Your task to perform on an android device: clear all cookies in the chrome app Image 0: 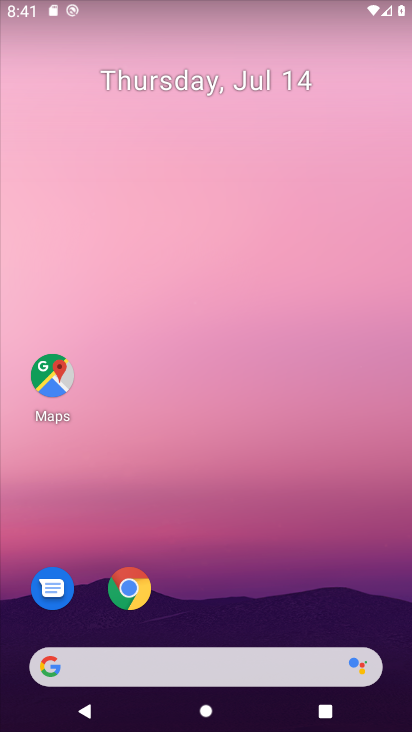
Step 0: drag from (352, 569) to (367, 55)
Your task to perform on an android device: clear all cookies in the chrome app Image 1: 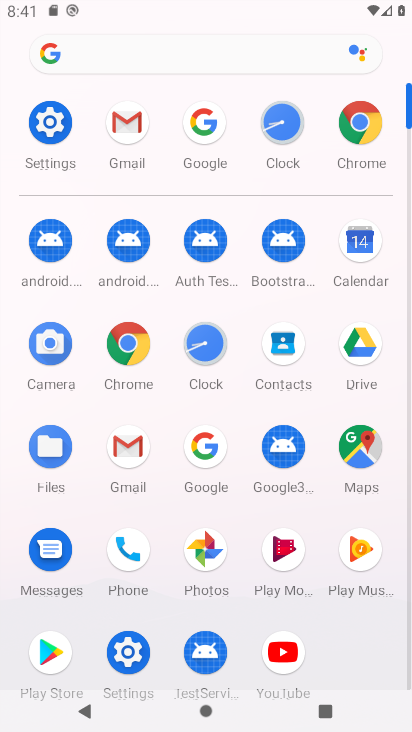
Step 1: click (365, 137)
Your task to perform on an android device: clear all cookies in the chrome app Image 2: 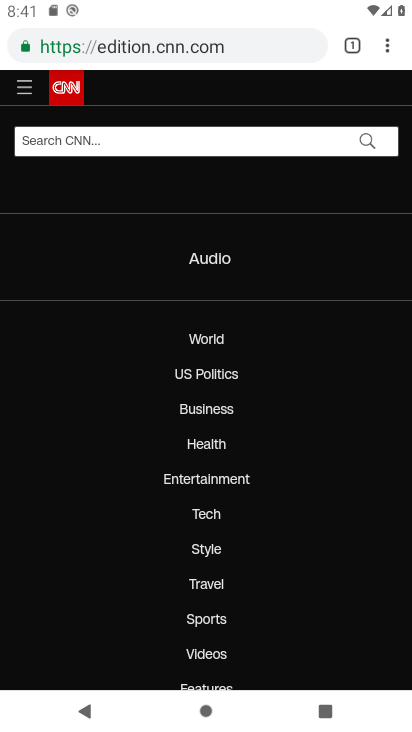
Step 2: click (387, 45)
Your task to perform on an android device: clear all cookies in the chrome app Image 3: 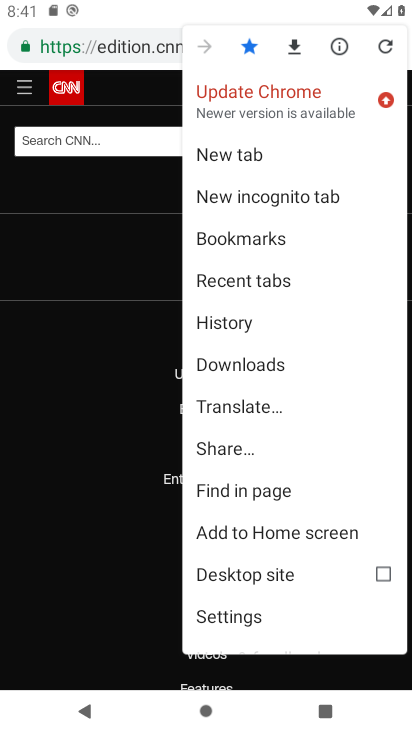
Step 3: click (255, 623)
Your task to perform on an android device: clear all cookies in the chrome app Image 4: 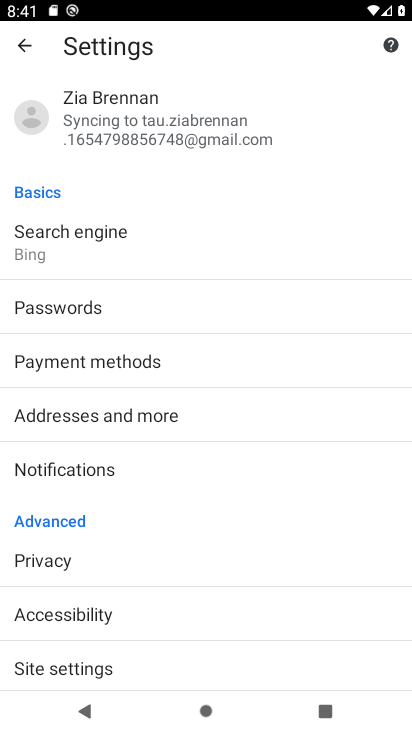
Step 4: drag from (235, 542) to (251, 456)
Your task to perform on an android device: clear all cookies in the chrome app Image 5: 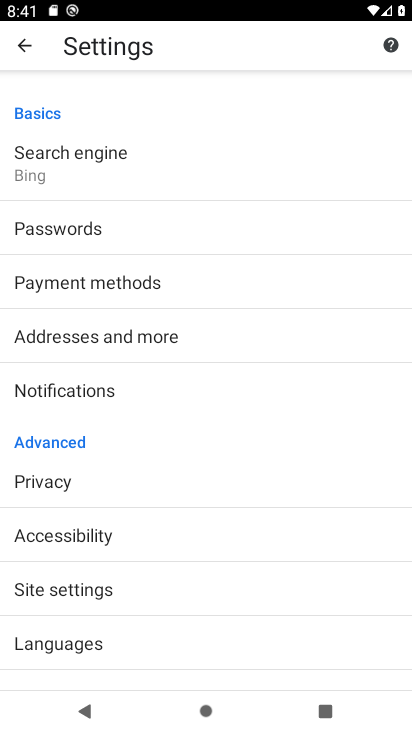
Step 5: drag from (290, 607) to (317, 389)
Your task to perform on an android device: clear all cookies in the chrome app Image 6: 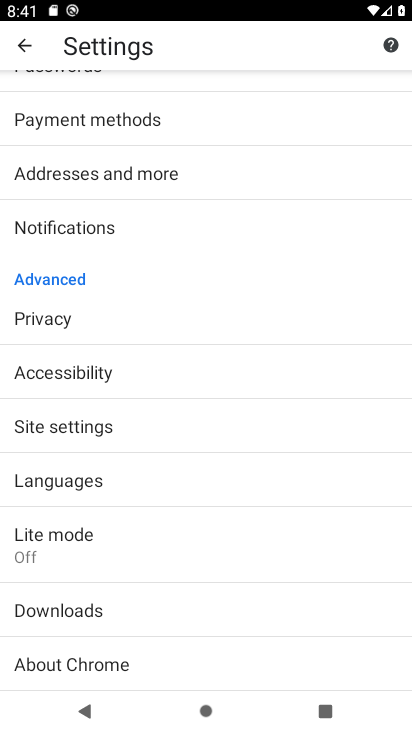
Step 6: drag from (290, 312) to (290, 414)
Your task to perform on an android device: clear all cookies in the chrome app Image 7: 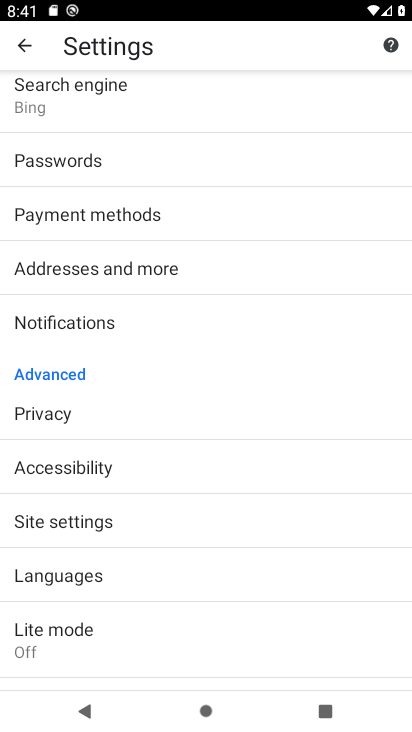
Step 7: drag from (294, 312) to (292, 400)
Your task to perform on an android device: clear all cookies in the chrome app Image 8: 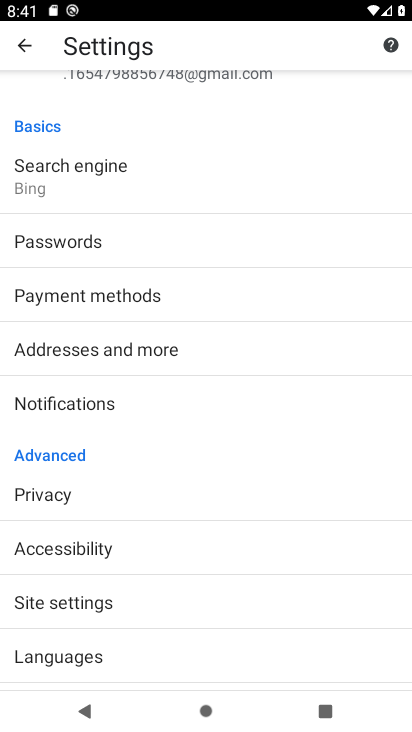
Step 8: click (222, 508)
Your task to perform on an android device: clear all cookies in the chrome app Image 9: 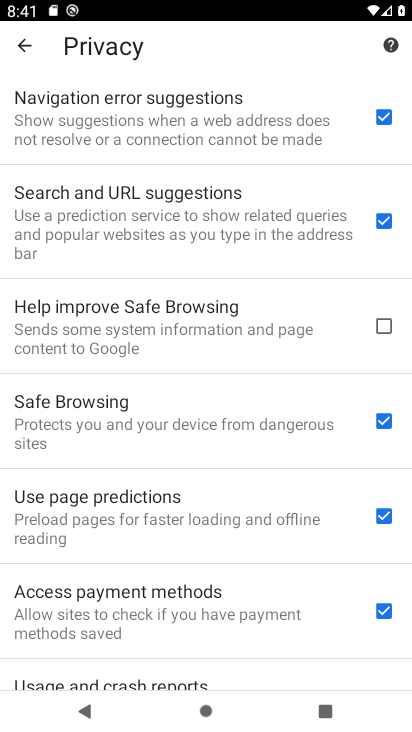
Step 9: drag from (294, 535) to (308, 411)
Your task to perform on an android device: clear all cookies in the chrome app Image 10: 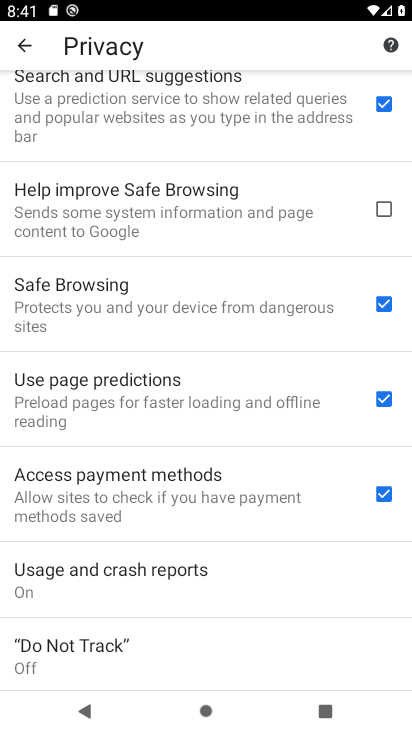
Step 10: drag from (314, 573) to (319, 419)
Your task to perform on an android device: clear all cookies in the chrome app Image 11: 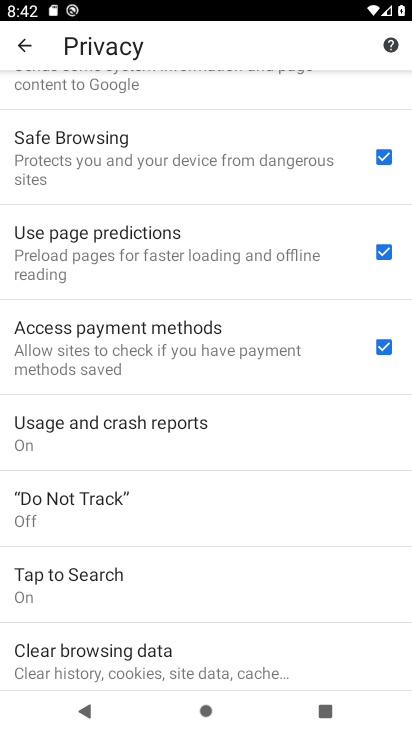
Step 11: drag from (315, 581) to (316, 471)
Your task to perform on an android device: clear all cookies in the chrome app Image 12: 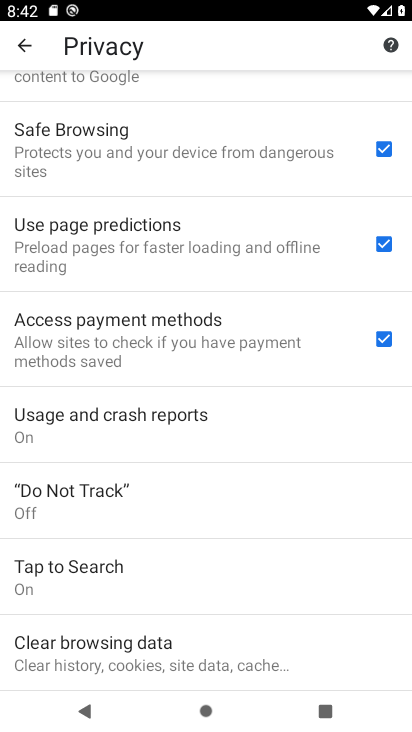
Step 12: click (286, 653)
Your task to perform on an android device: clear all cookies in the chrome app Image 13: 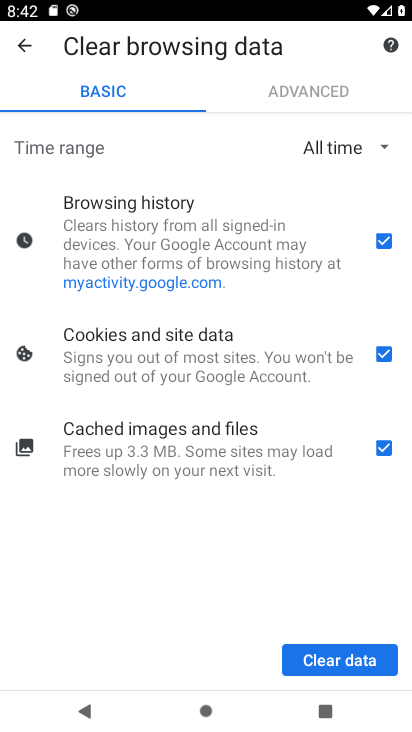
Step 13: click (345, 654)
Your task to perform on an android device: clear all cookies in the chrome app Image 14: 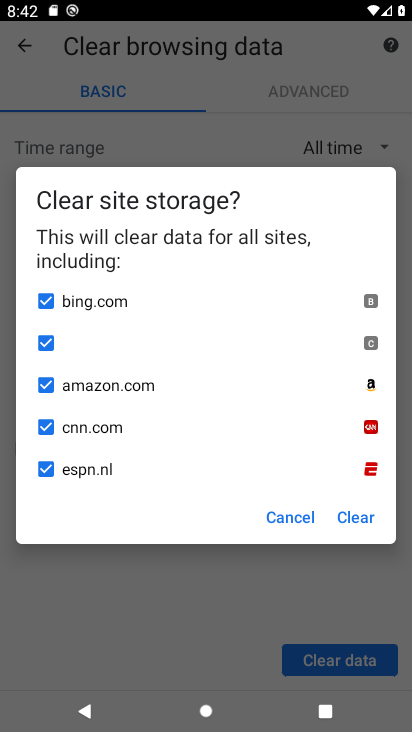
Step 14: click (355, 521)
Your task to perform on an android device: clear all cookies in the chrome app Image 15: 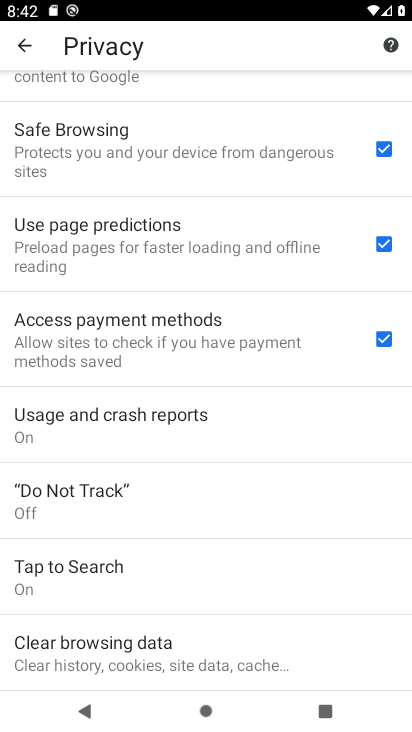
Step 15: task complete